Your task to perform on an android device: Go to wifi settings Image 0: 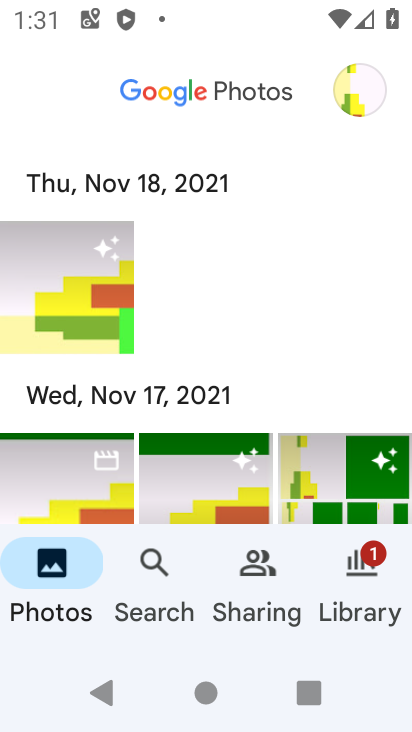
Step 0: press home button
Your task to perform on an android device: Go to wifi settings Image 1: 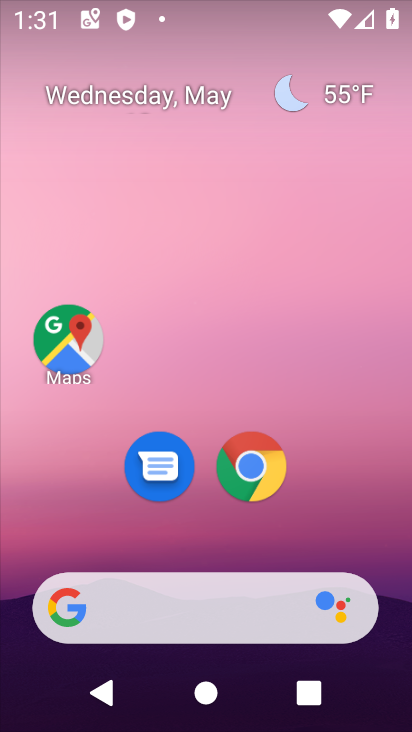
Step 1: drag from (244, 531) to (287, 28)
Your task to perform on an android device: Go to wifi settings Image 2: 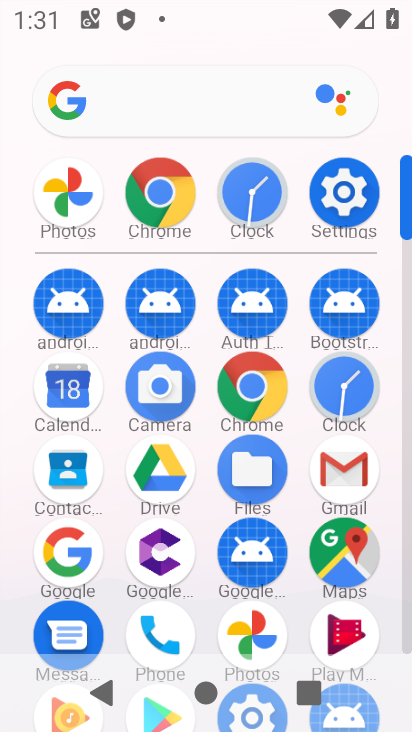
Step 2: click (345, 172)
Your task to perform on an android device: Go to wifi settings Image 3: 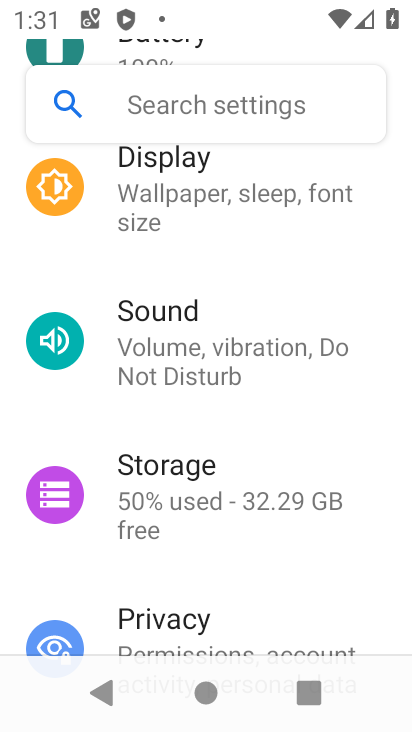
Step 3: drag from (182, 224) to (286, 508)
Your task to perform on an android device: Go to wifi settings Image 4: 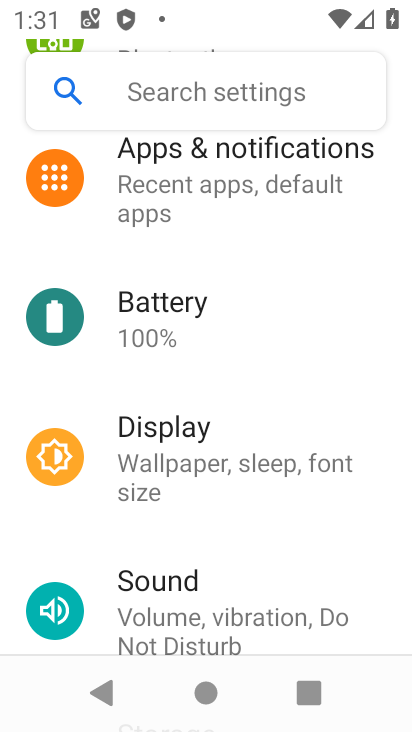
Step 4: drag from (122, 248) to (184, 581)
Your task to perform on an android device: Go to wifi settings Image 5: 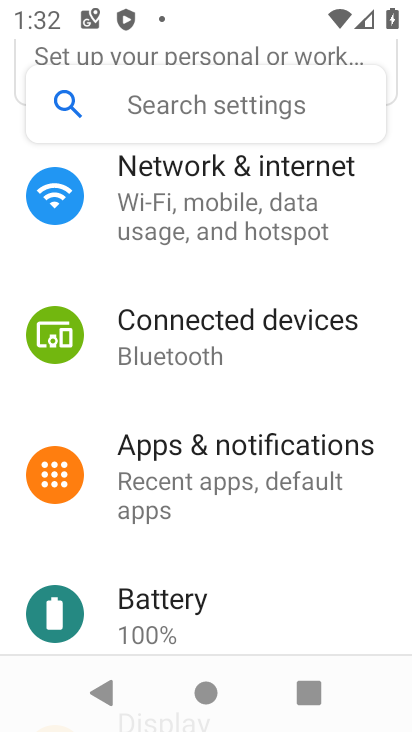
Step 5: click (225, 199)
Your task to perform on an android device: Go to wifi settings Image 6: 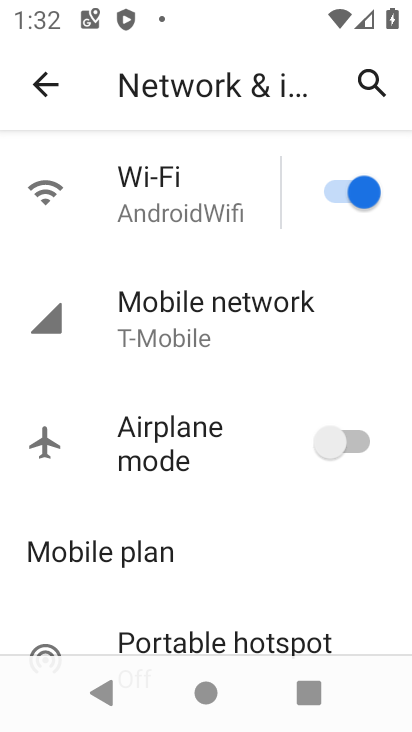
Step 6: click (189, 184)
Your task to perform on an android device: Go to wifi settings Image 7: 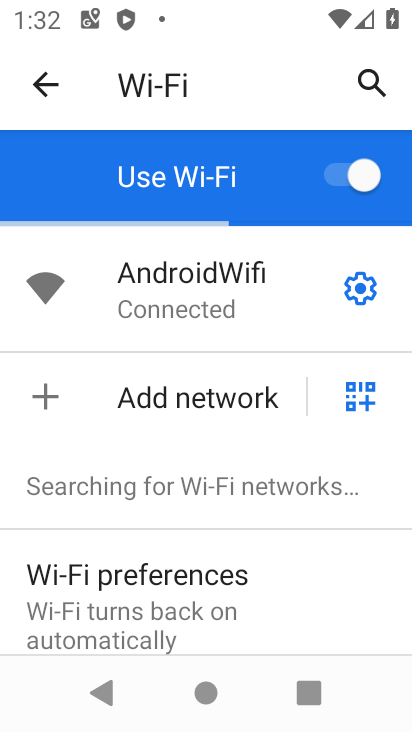
Step 7: task complete